Your task to perform on an android device: Go to Yahoo.com Image 0: 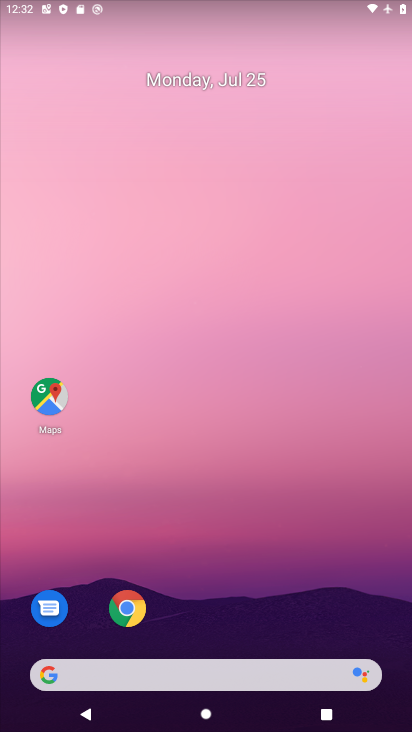
Step 0: drag from (250, 674) to (238, 92)
Your task to perform on an android device: Go to Yahoo.com Image 1: 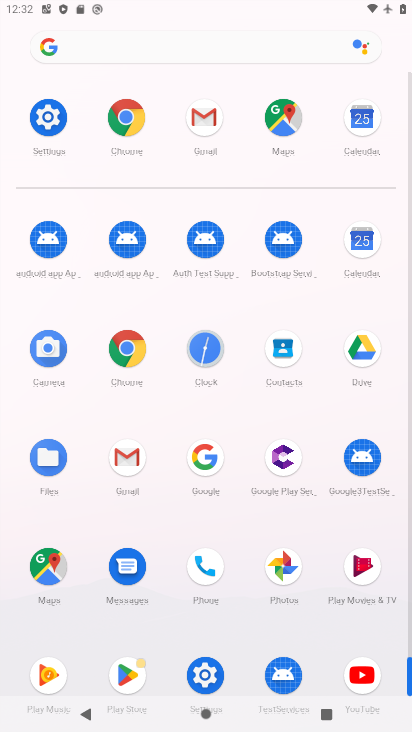
Step 1: click (137, 132)
Your task to perform on an android device: Go to Yahoo.com Image 2: 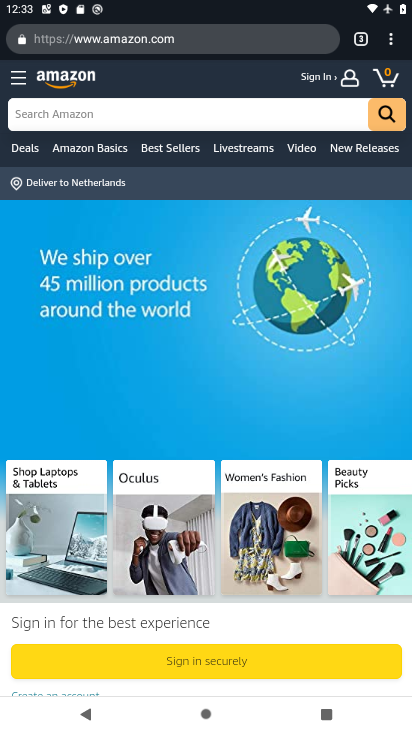
Step 2: click (176, 48)
Your task to perform on an android device: Go to Yahoo.com Image 3: 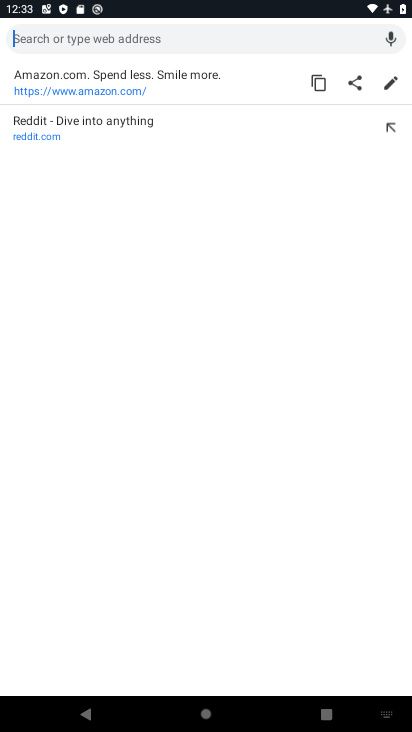
Step 3: type "yahoo"
Your task to perform on an android device: Go to Yahoo.com Image 4: 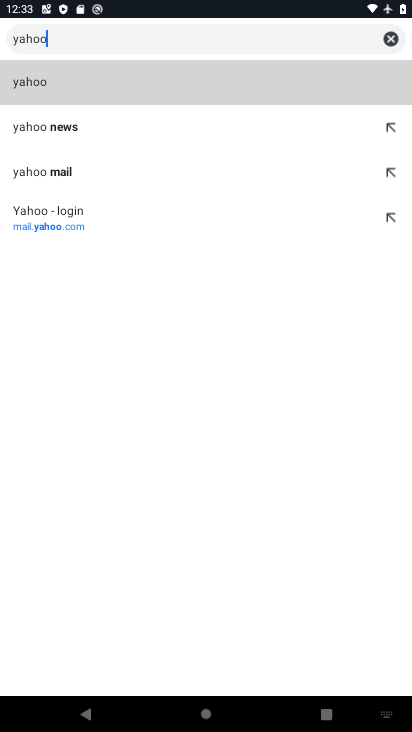
Step 4: click (107, 235)
Your task to perform on an android device: Go to Yahoo.com Image 5: 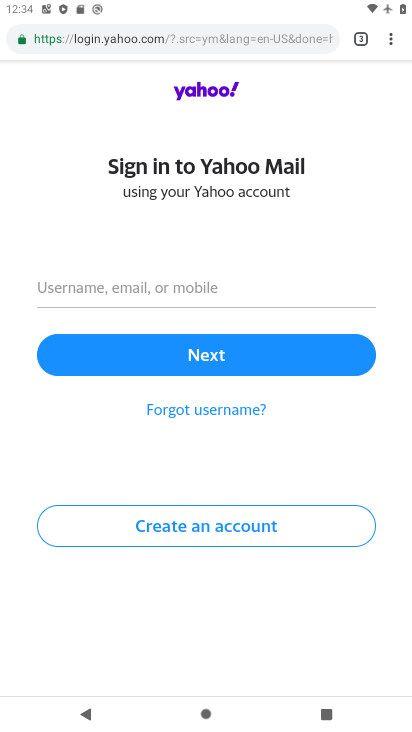
Step 5: task complete